Your task to perform on an android device: install app "DoorDash - Dasher" Image 0: 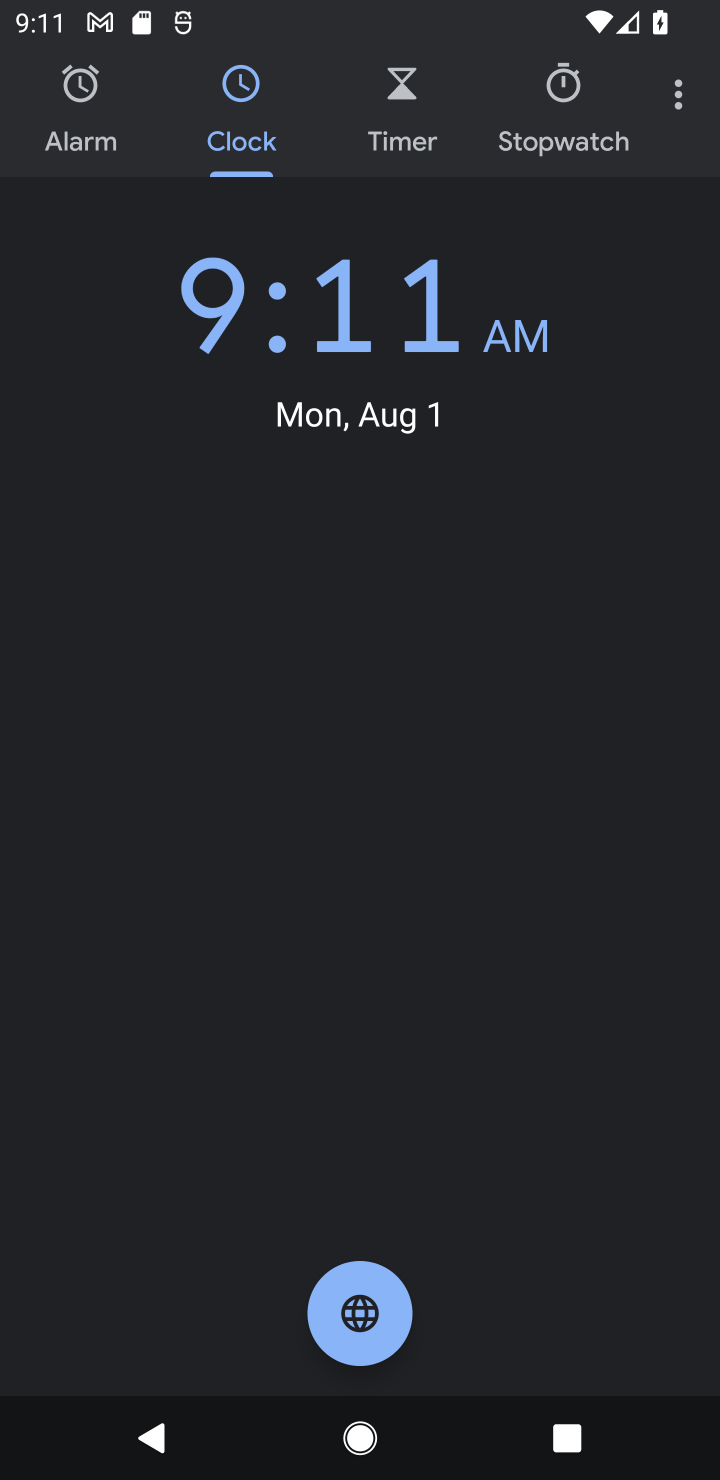
Step 0: press home button
Your task to perform on an android device: install app "DoorDash - Dasher" Image 1: 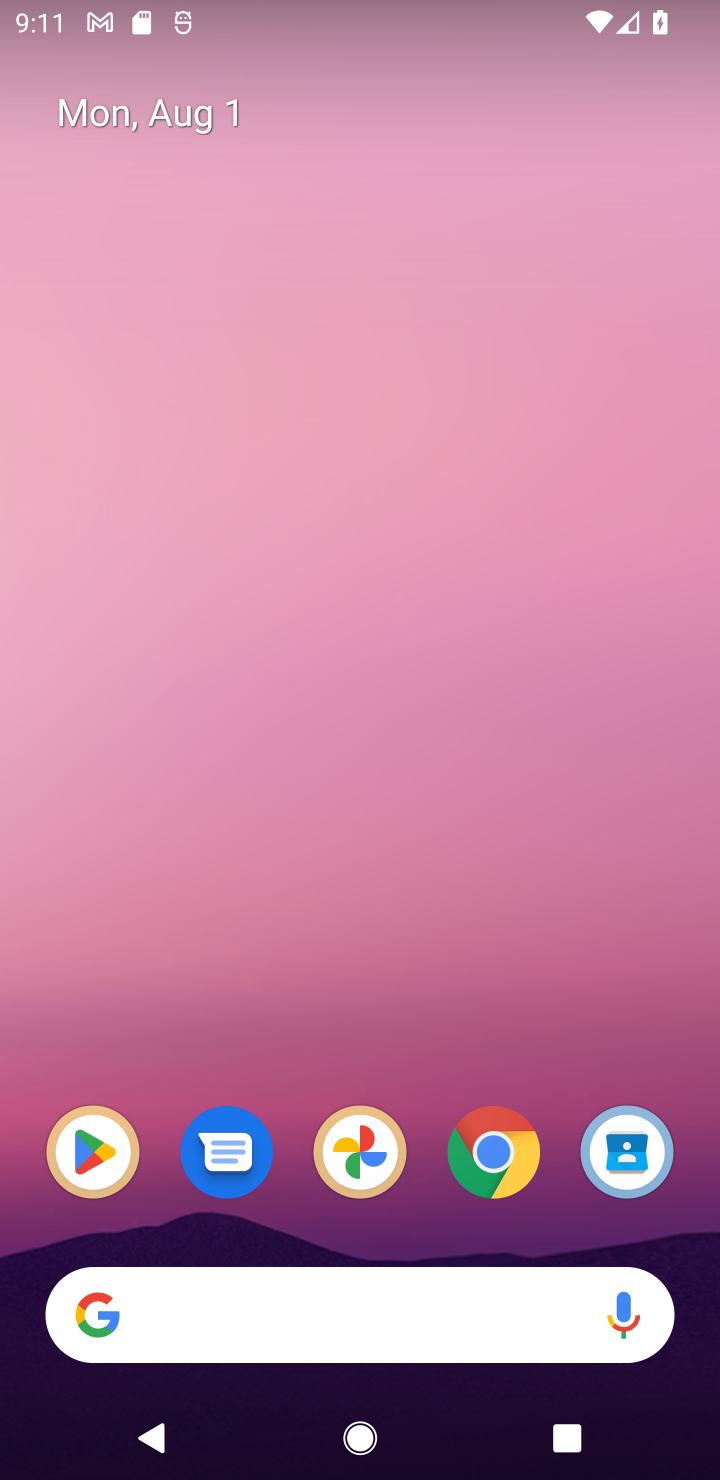
Step 1: drag from (397, 1197) to (409, 179)
Your task to perform on an android device: install app "DoorDash - Dasher" Image 2: 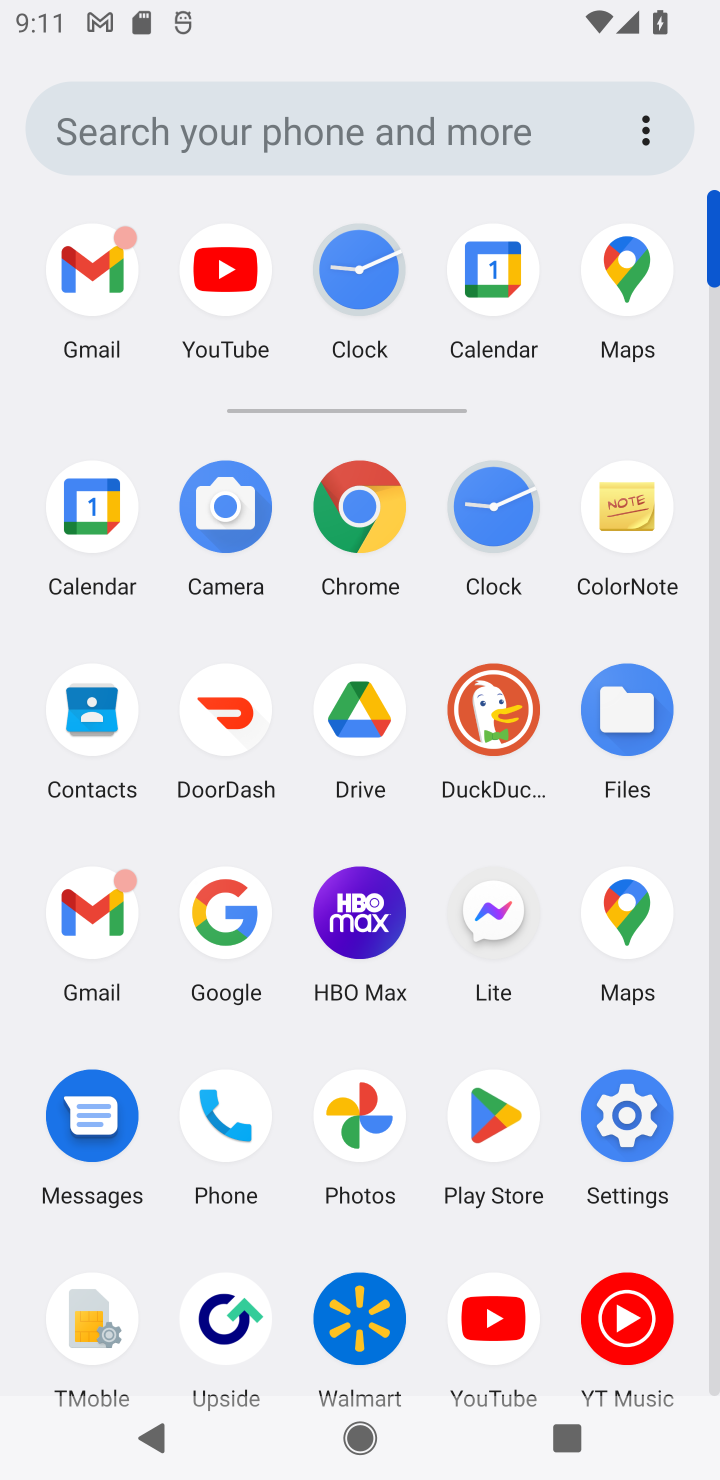
Step 2: click (536, 1160)
Your task to perform on an android device: install app "DoorDash - Dasher" Image 3: 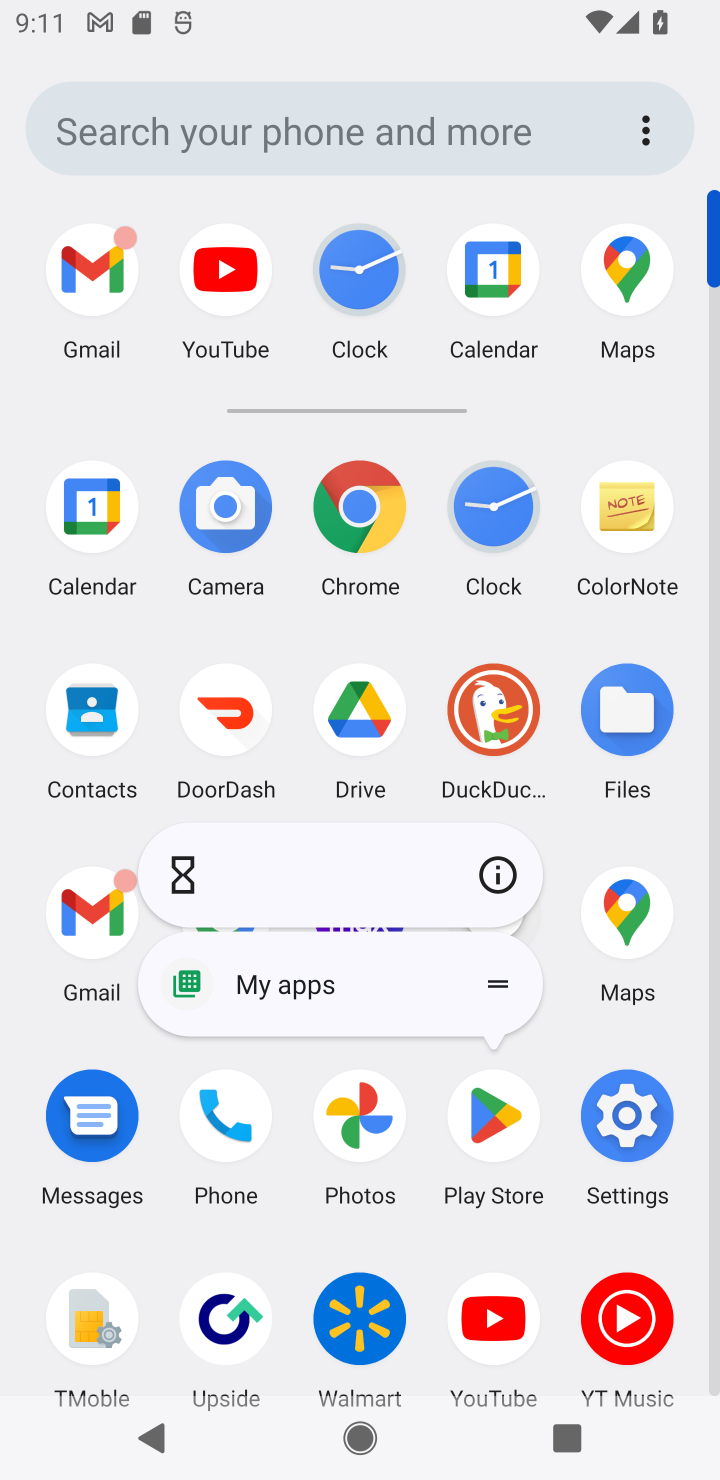
Step 3: click (513, 1135)
Your task to perform on an android device: install app "DoorDash - Dasher" Image 4: 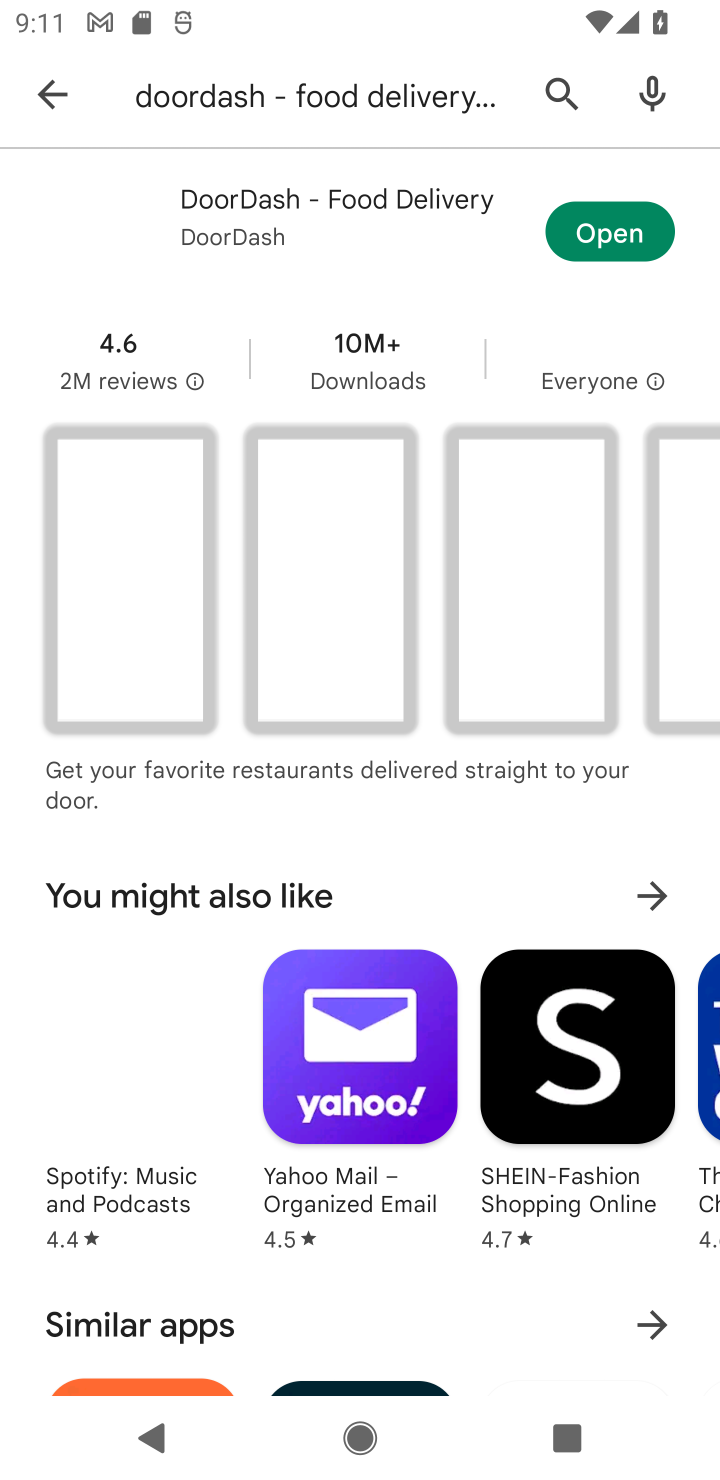
Step 4: click (357, 230)
Your task to perform on an android device: install app "DoorDash - Dasher" Image 5: 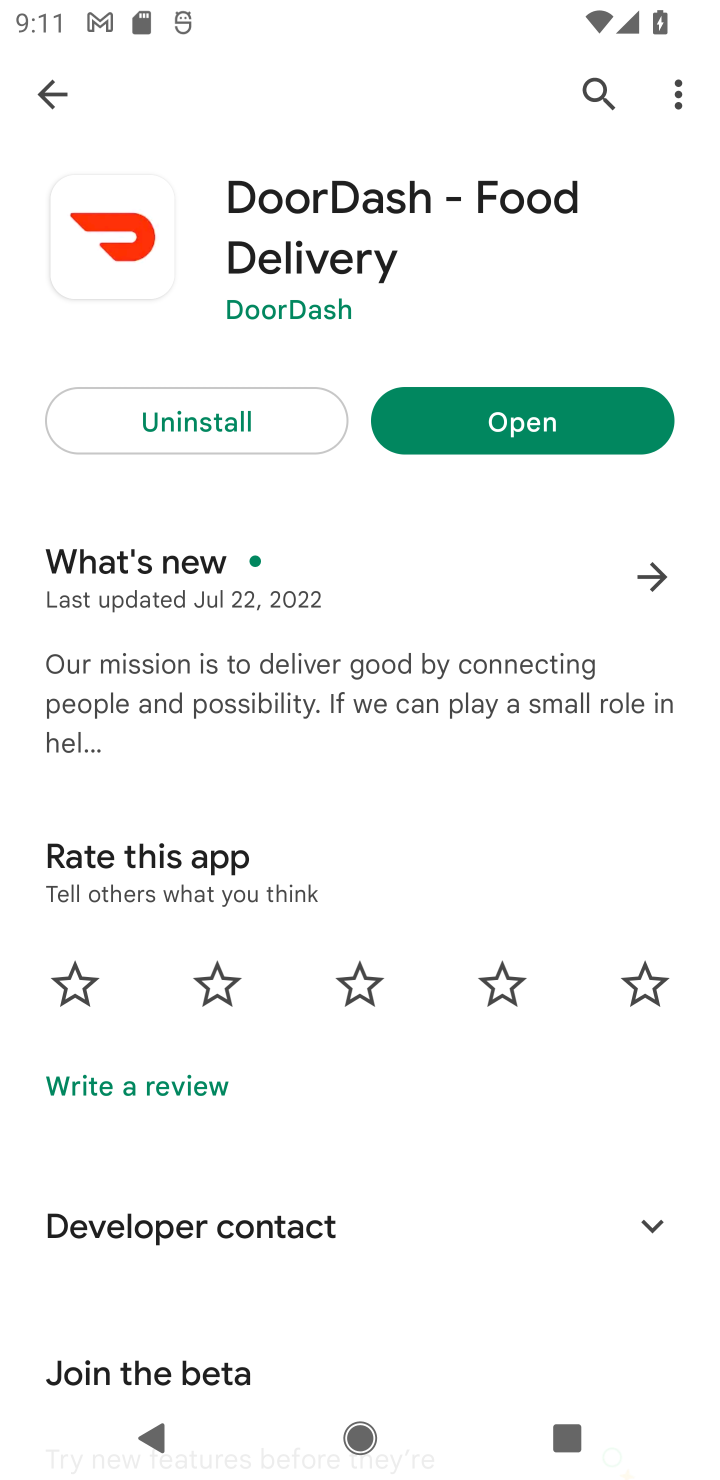
Step 5: task complete